Your task to perform on an android device: Open Google Image 0: 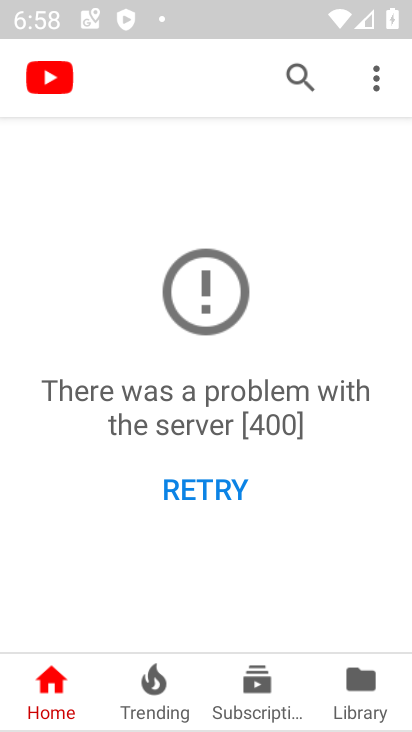
Step 0: press home button
Your task to perform on an android device: Open Google Image 1: 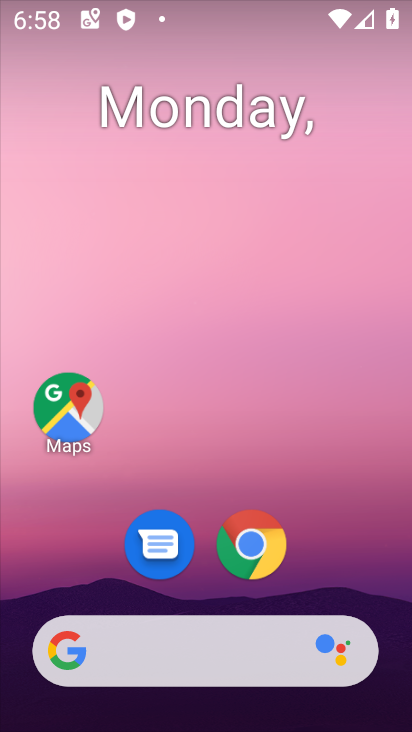
Step 1: click (61, 649)
Your task to perform on an android device: Open Google Image 2: 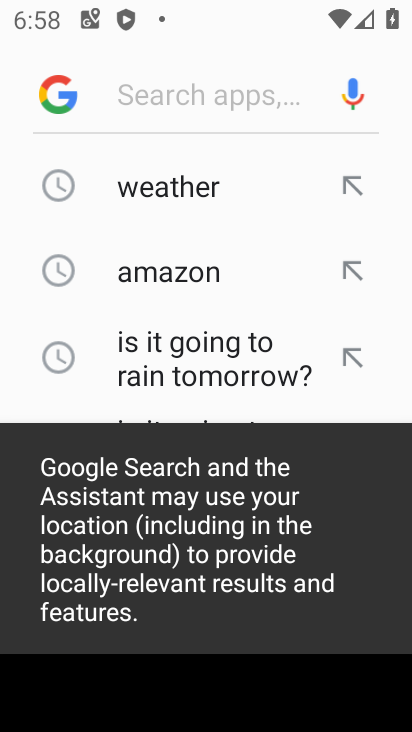
Step 2: click (73, 84)
Your task to perform on an android device: Open Google Image 3: 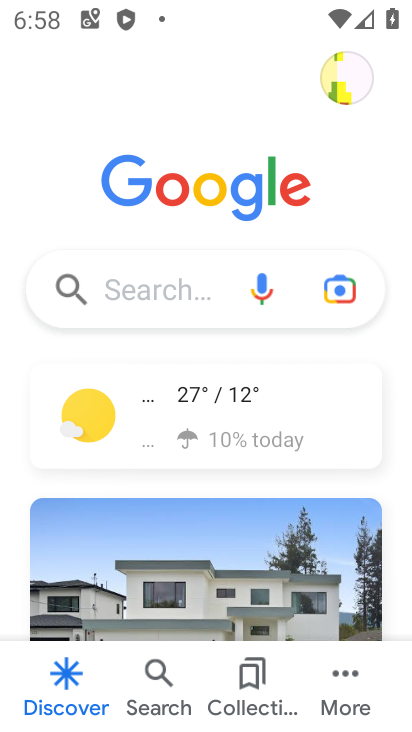
Step 3: task complete